Your task to perform on an android device: Show me popular games on the Play Store Image 0: 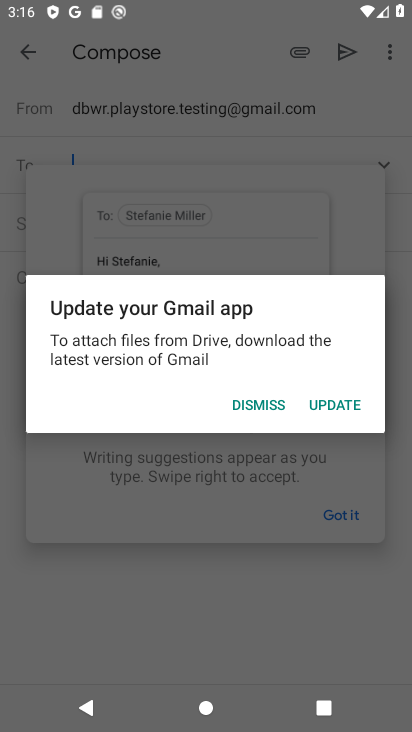
Step 0: press home button
Your task to perform on an android device: Show me popular games on the Play Store Image 1: 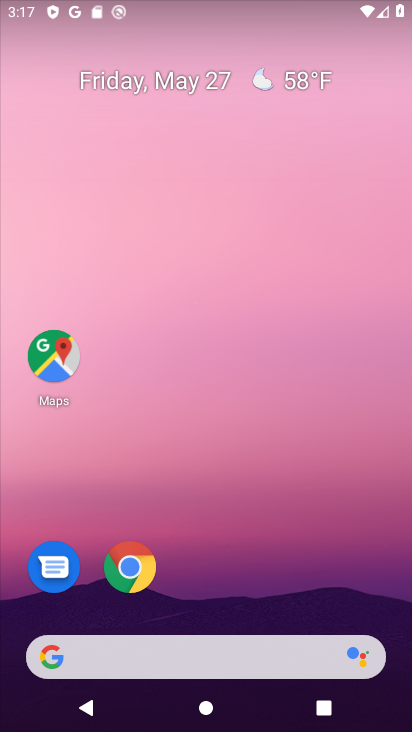
Step 1: drag from (226, 614) to (233, 10)
Your task to perform on an android device: Show me popular games on the Play Store Image 2: 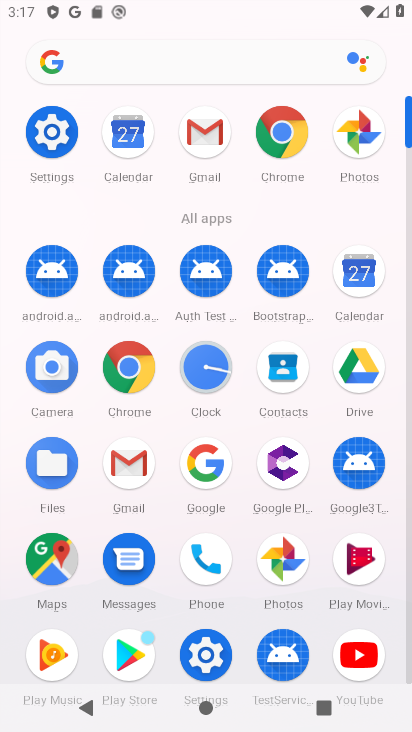
Step 2: click (121, 645)
Your task to perform on an android device: Show me popular games on the Play Store Image 3: 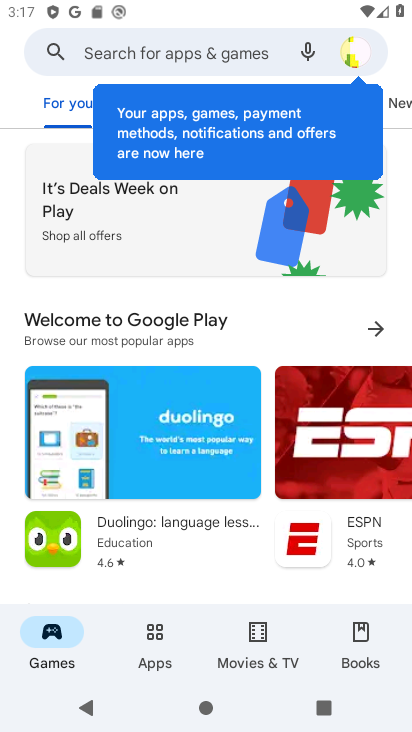
Step 3: task complete